Your task to perform on an android device: When is my next meeting? Image 0: 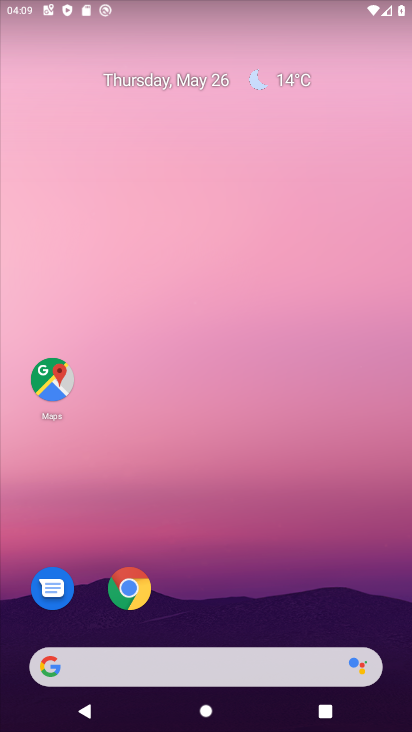
Step 0: drag from (235, 609) to (244, 130)
Your task to perform on an android device: When is my next meeting? Image 1: 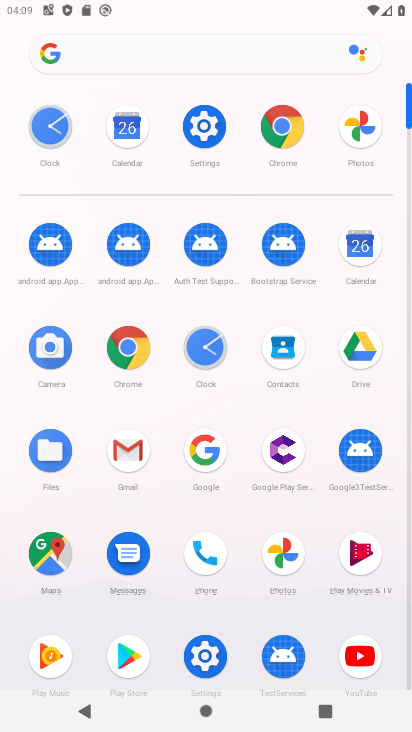
Step 1: click (366, 263)
Your task to perform on an android device: When is my next meeting? Image 2: 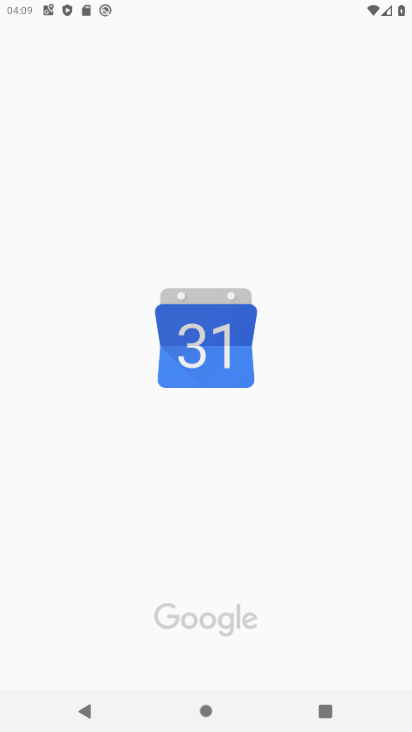
Step 2: task complete